Your task to perform on an android device: Open Google Chrome Image 0: 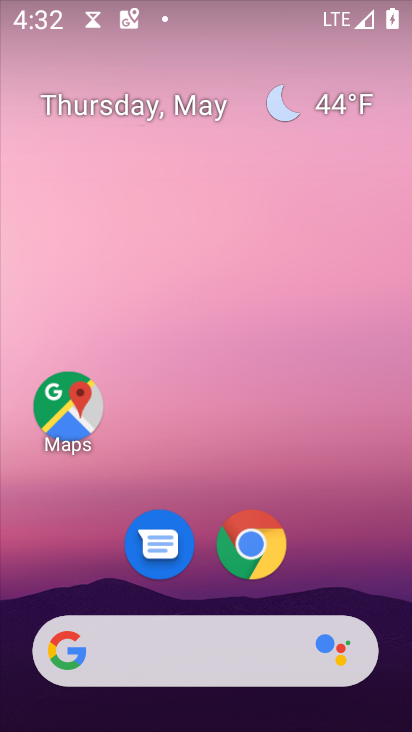
Step 0: click (252, 543)
Your task to perform on an android device: Open Google Chrome Image 1: 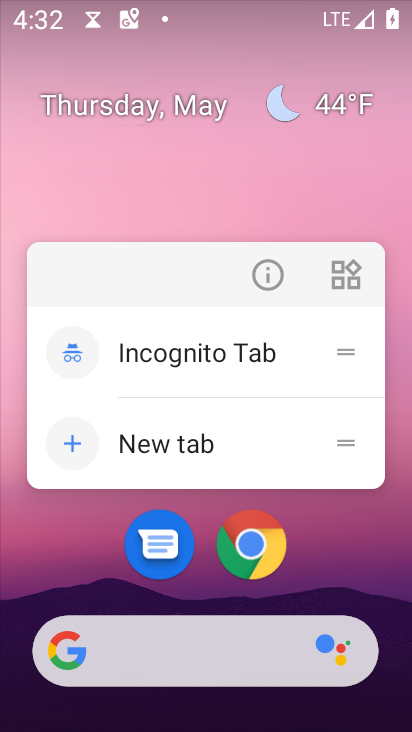
Step 1: click (239, 572)
Your task to perform on an android device: Open Google Chrome Image 2: 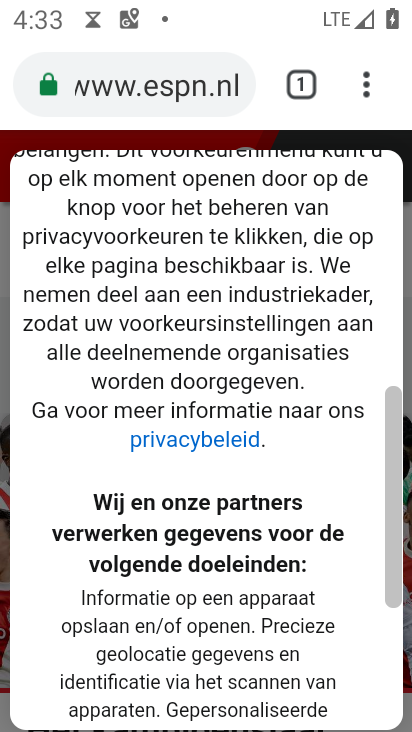
Step 2: task complete